Your task to perform on an android device: Go to Amazon Image 0: 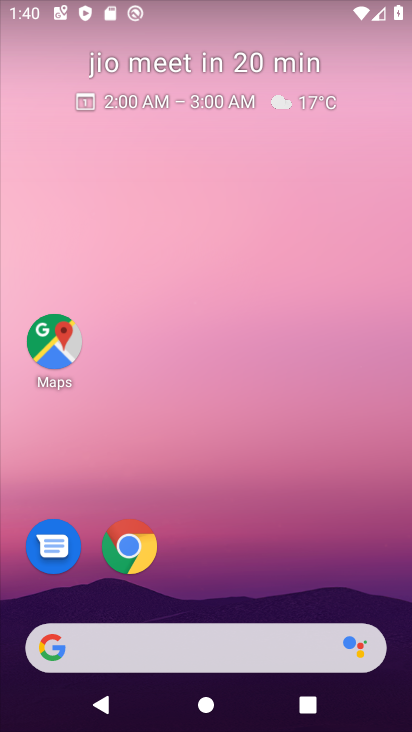
Step 0: click (227, 642)
Your task to perform on an android device: Go to Amazon Image 1: 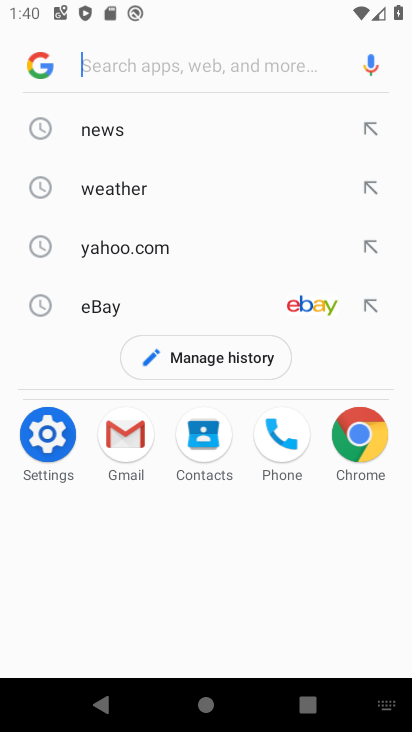
Step 1: type "amaxzon"
Your task to perform on an android device: Go to Amazon Image 2: 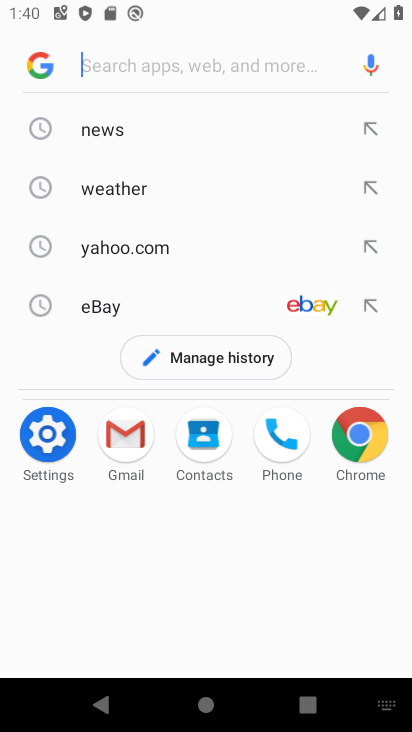
Step 2: click (190, 62)
Your task to perform on an android device: Go to Amazon Image 3: 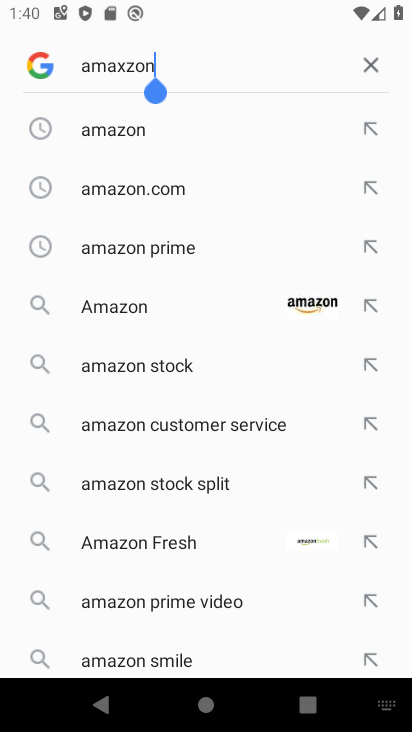
Step 3: click (157, 203)
Your task to perform on an android device: Go to Amazon Image 4: 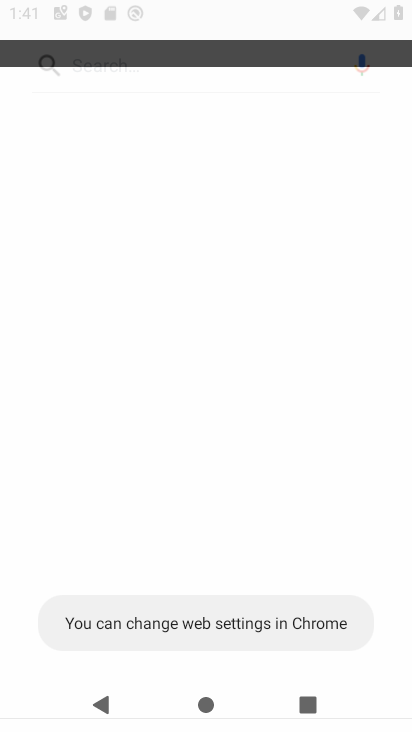
Step 4: task complete